Your task to perform on an android device: change the clock style Image 0: 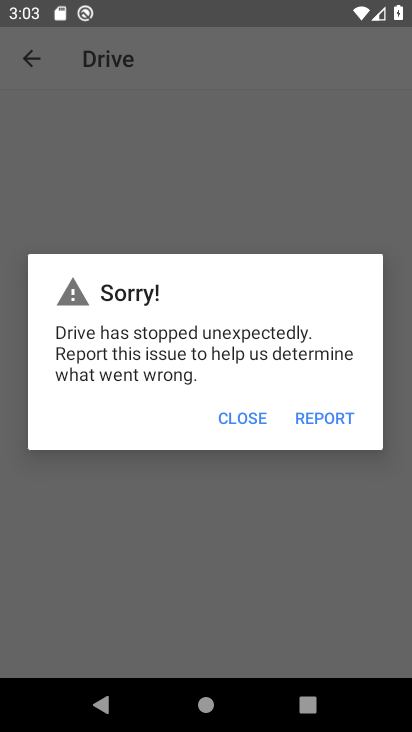
Step 0: press home button
Your task to perform on an android device: change the clock style Image 1: 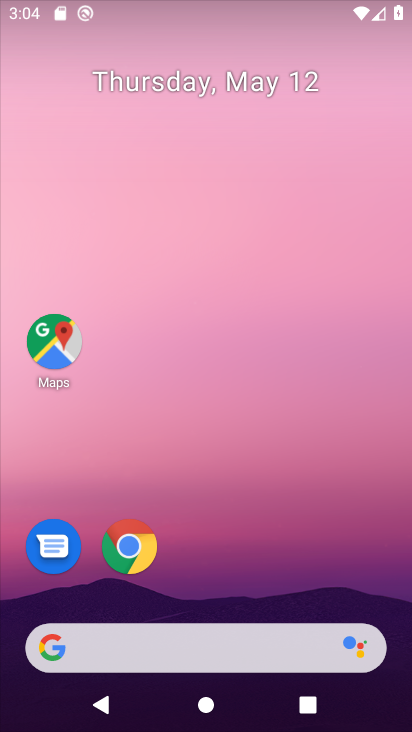
Step 1: drag from (228, 583) to (250, 218)
Your task to perform on an android device: change the clock style Image 2: 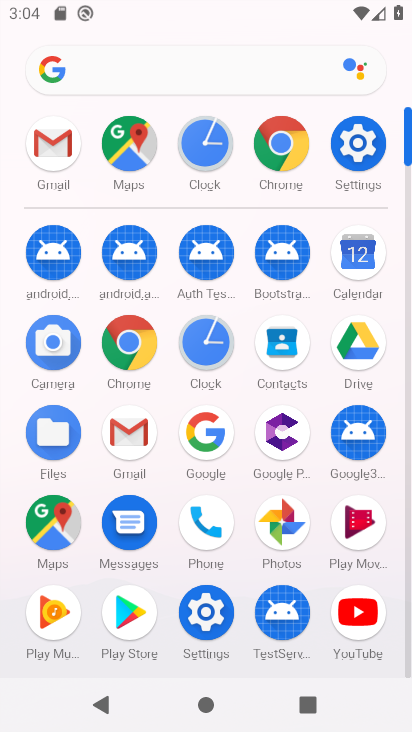
Step 2: click (211, 330)
Your task to perform on an android device: change the clock style Image 3: 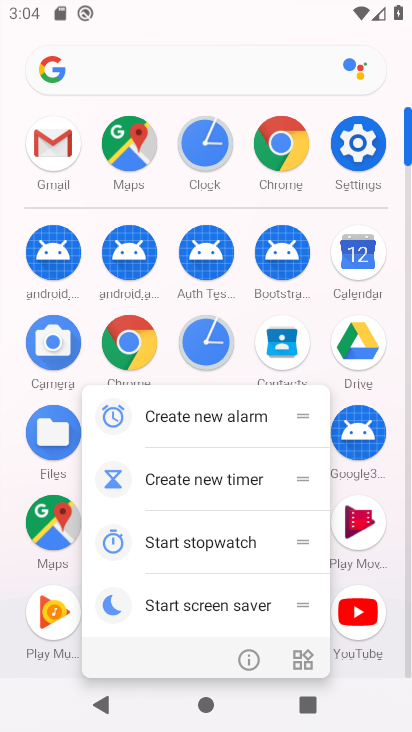
Step 3: click (209, 332)
Your task to perform on an android device: change the clock style Image 4: 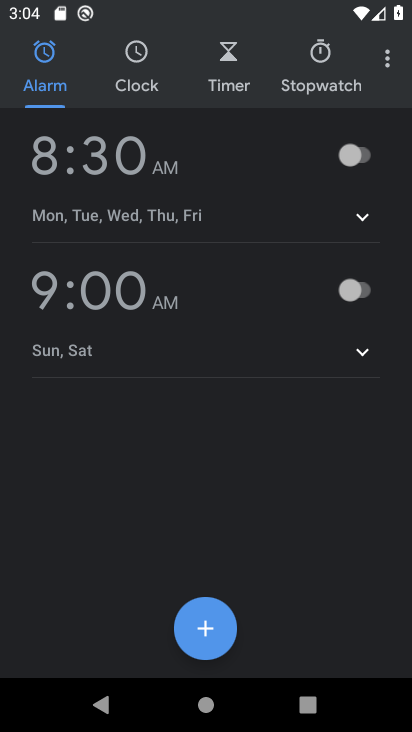
Step 4: click (384, 56)
Your task to perform on an android device: change the clock style Image 5: 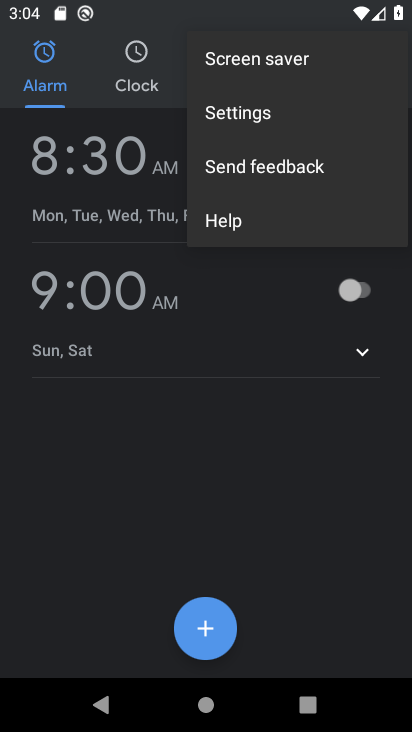
Step 5: click (285, 114)
Your task to perform on an android device: change the clock style Image 6: 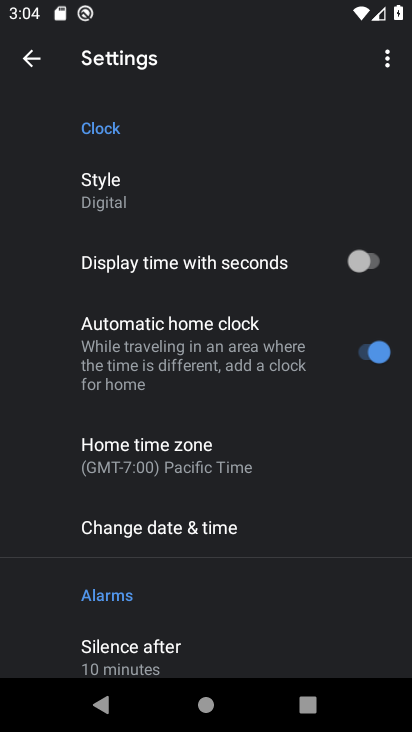
Step 6: click (112, 184)
Your task to perform on an android device: change the clock style Image 7: 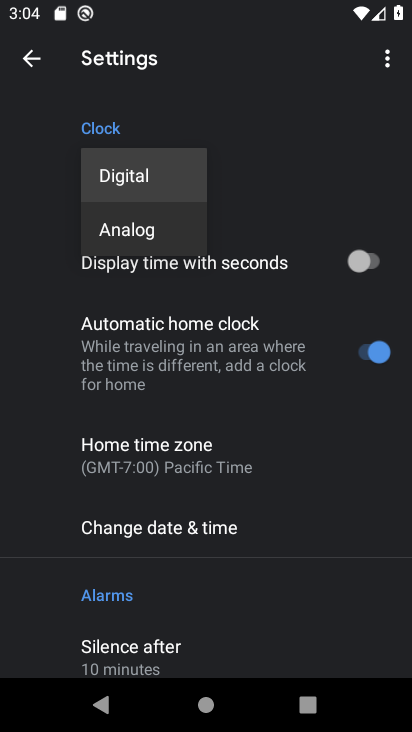
Step 7: click (142, 228)
Your task to perform on an android device: change the clock style Image 8: 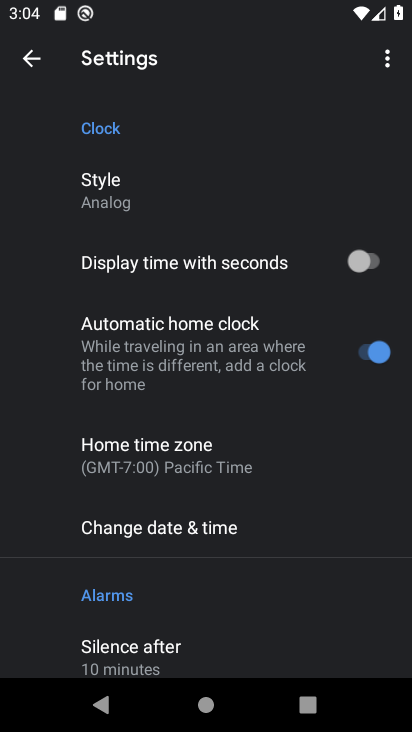
Step 8: task complete